Your task to perform on an android device: Search for usb-a to usb-b on target, select the first entry, and add it to the cart. Image 0: 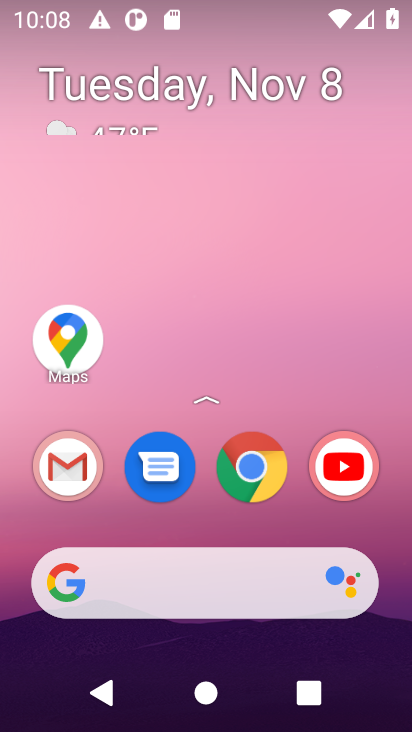
Step 0: click (304, 596)
Your task to perform on an android device: Search for usb-a to usb-b on target, select the first entry, and add it to the cart. Image 1: 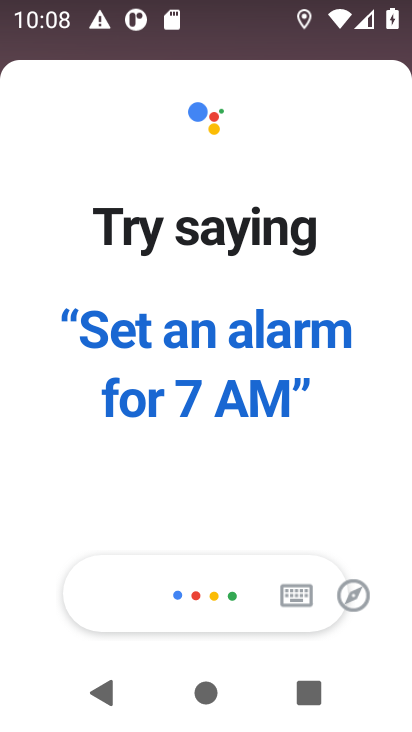
Step 1: press home button
Your task to perform on an android device: Search for usb-a to usb-b on target, select the first entry, and add it to the cart. Image 2: 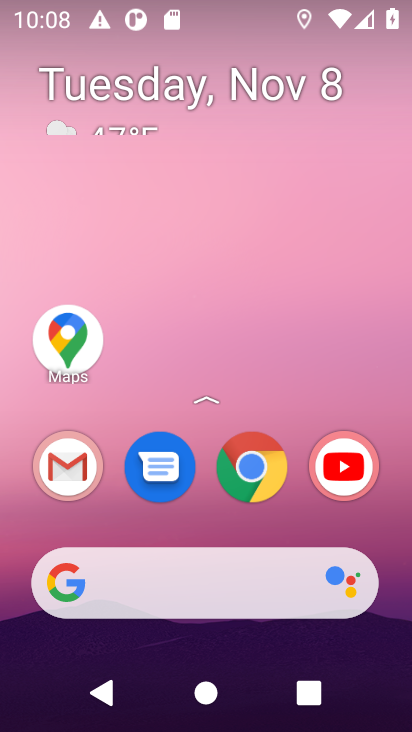
Step 2: click (204, 582)
Your task to perform on an android device: Search for usb-a to usb-b on target, select the first entry, and add it to the cart. Image 3: 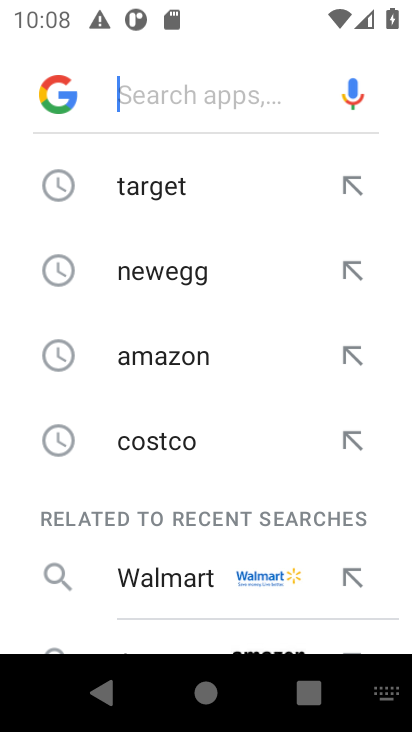
Step 3: type "usb-a to usb-b"
Your task to perform on an android device: Search for usb-a to usb-b on target, select the first entry, and add it to the cart. Image 4: 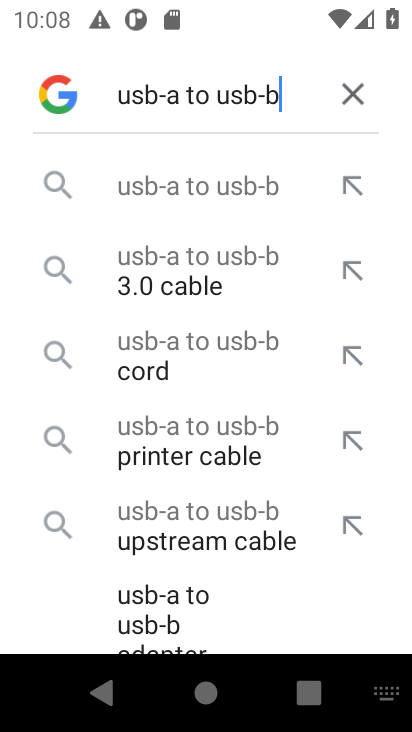
Step 4: click (142, 186)
Your task to perform on an android device: Search for usb-a to usb-b on target, select the first entry, and add it to the cart. Image 5: 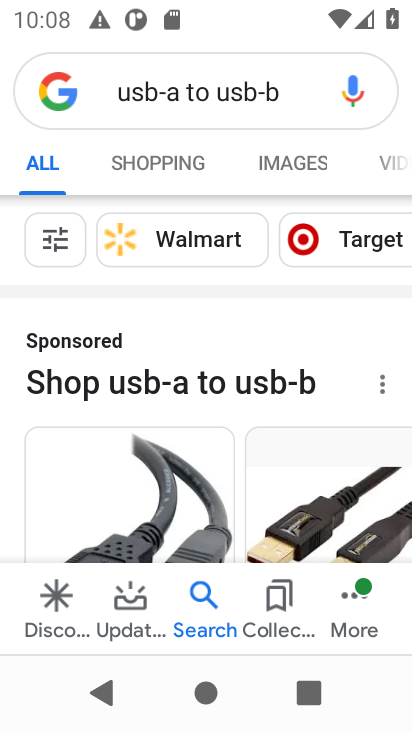
Step 5: task complete